Your task to perform on an android device: read, delete, or share a saved page in the chrome app Image 0: 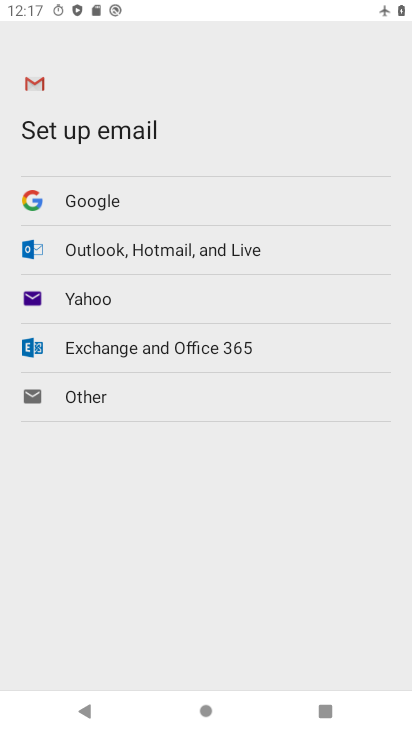
Step 0: press home button
Your task to perform on an android device: read, delete, or share a saved page in the chrome app Image 1: 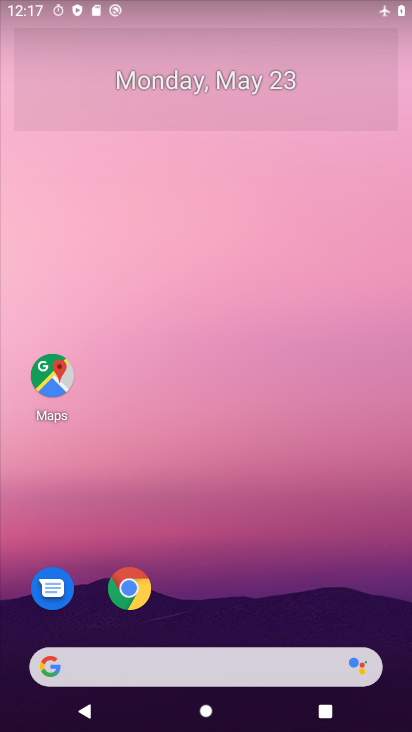
Step 1: click (132, 586)
Your task to perform on an android device: read, delete, or share a saved page in the chrome app Image 2: 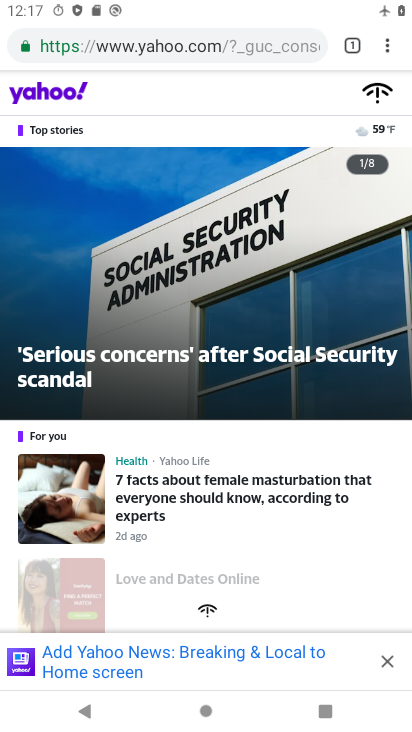
Step 2: click (388, 48)
Your task to perform on an android device: read, delete, or share a saved page in the chrome app Image 3: 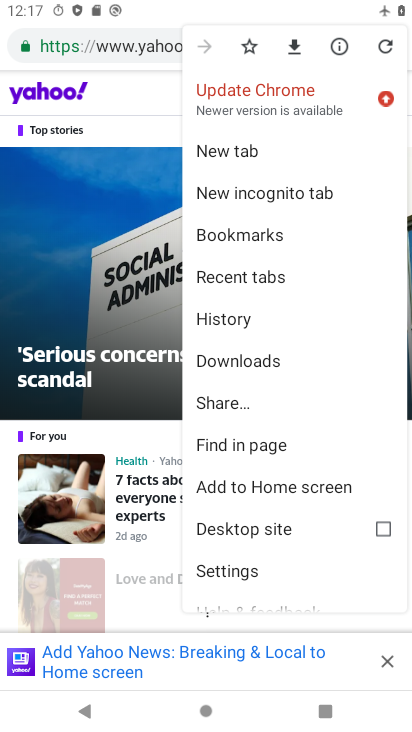
Step 3: click (220, 360)
Your task to perform on an android device: read, delete, or share a saved page in the chrome app Image 4: 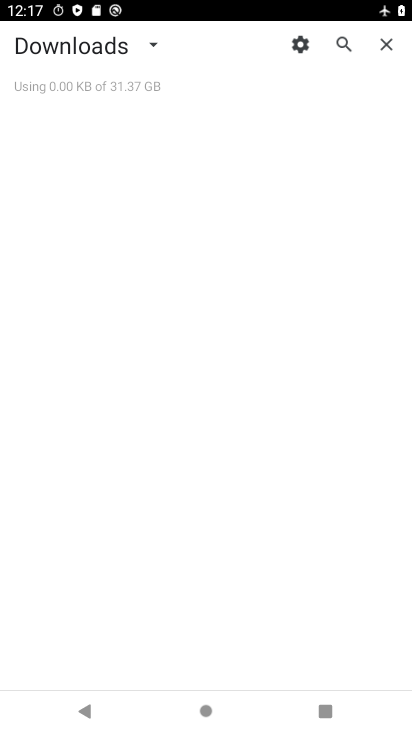
Step 4: click (153, 43)
Your task to perform on an android device: read, delete, or share a saved page in the chrome app Image 5: 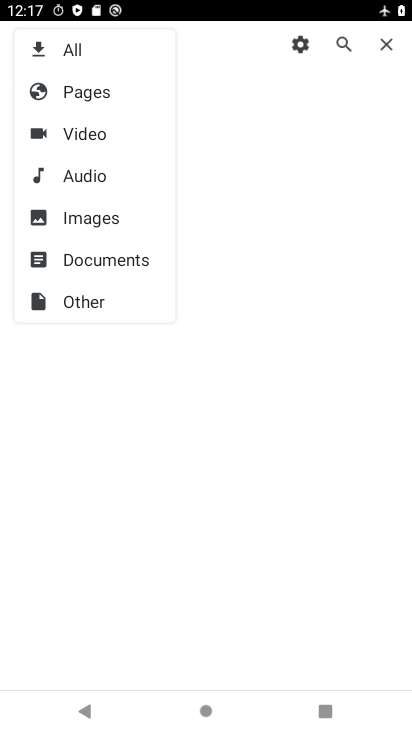
Step 5: click (90, 93)
Your task to perform on an android device: read, delete, or share a saved page in the chrome app Image 6: 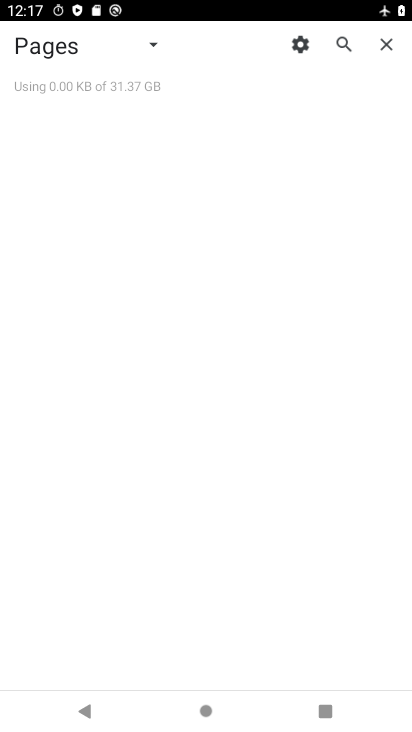
Step 6: task complete